Your task to perform on an android device: toggle notifications settings in the gmail app Image 0: 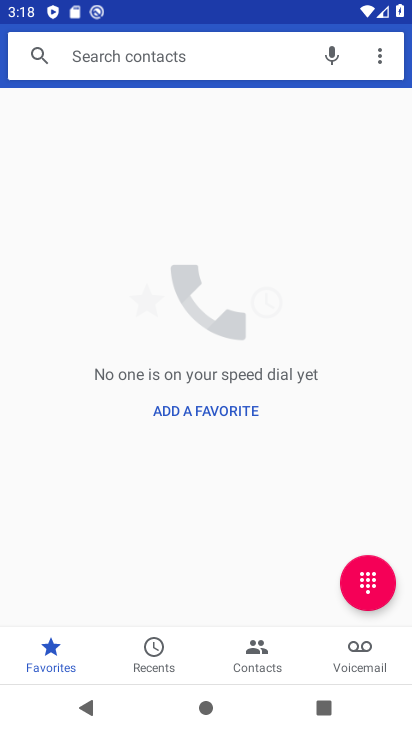
Step 0: press home button
Your task to perform on an android device: toggle notifications settings in the gmail app Image 1: 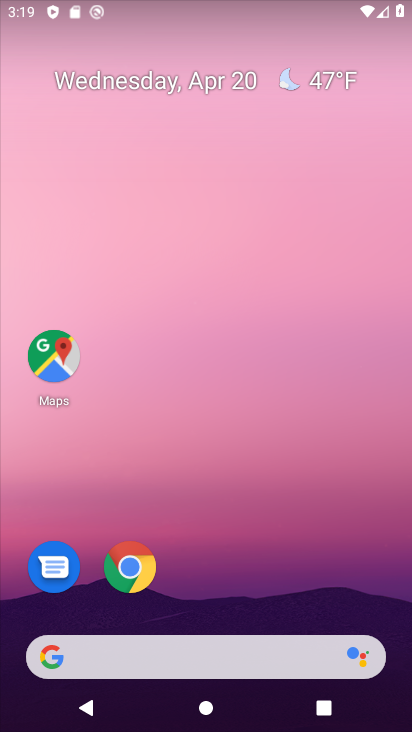
Step 1: drag from (162, 608) to (80, 21)
Your task to perform on an android device: toggle notifications settings in the gmail app Image 2: 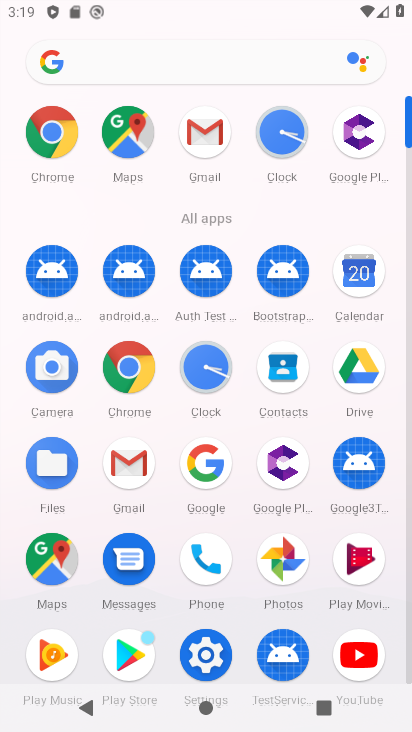
Step 2: click (218, 133)
Your task to perform on an android device: toggle notifications settings in the gmail app Image 3: 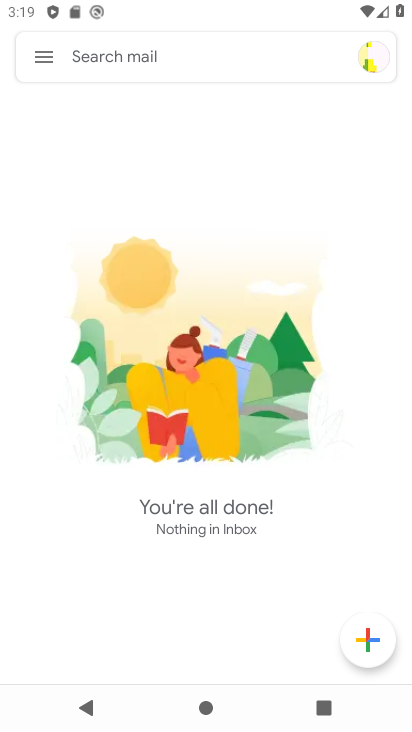
Step 3: click (45, 62)
Your task to perform on an android device: toggle notifications settings in the gmail app Image 4: 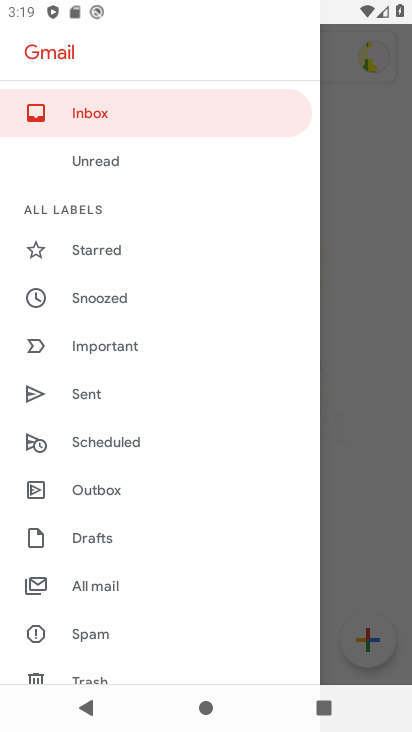
Step 4: drag from (162, 647) to (188, 14)
Your task to perform on an android device: toggle notifications settings in the gmail app Image 5: 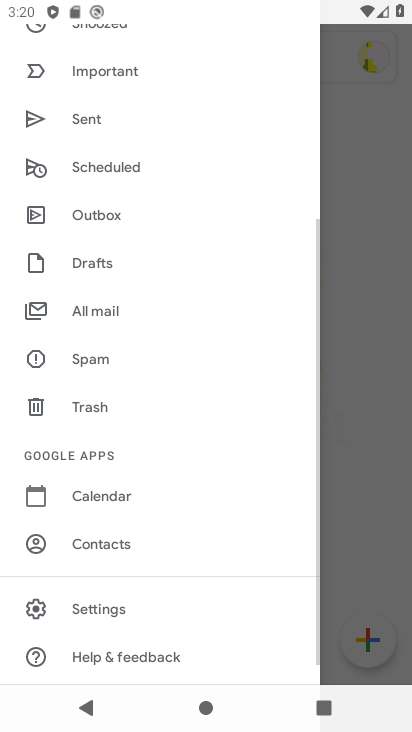
Step 5: click (109, 586)
Your task to perform on an android device: toggle notifications settings in the gmail app Image 6: 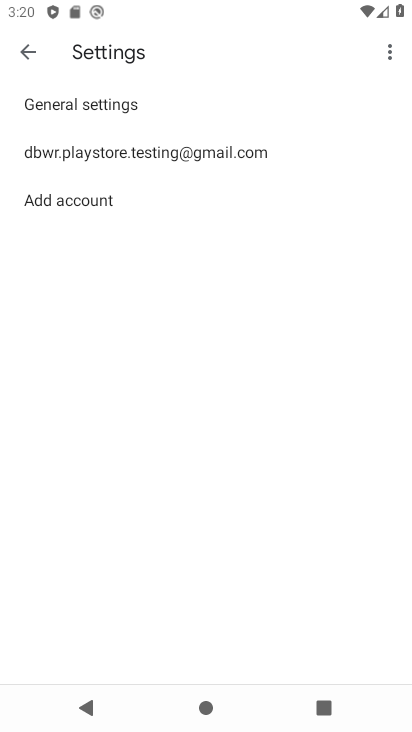
Step 6: click (100, 157)
Your task to perform on an android device: toggle notifications settings in the gmail app Image 7: 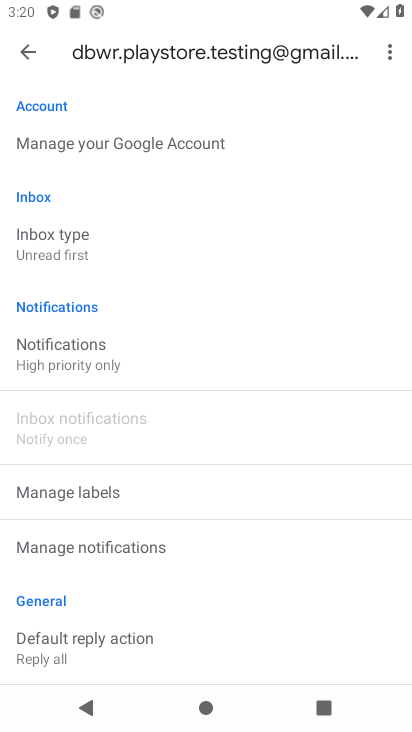
Step 7: click (153, 382)
Your task to perform on an android device: toggle notifications settings in the gmail app Image 8: 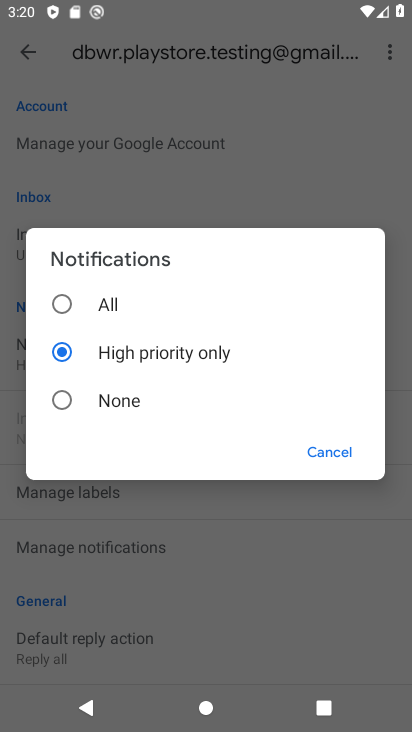
Step 8: click (103, 329)
Your task to perform on an android device: toggle notifications settings in the gmail app Image 9: 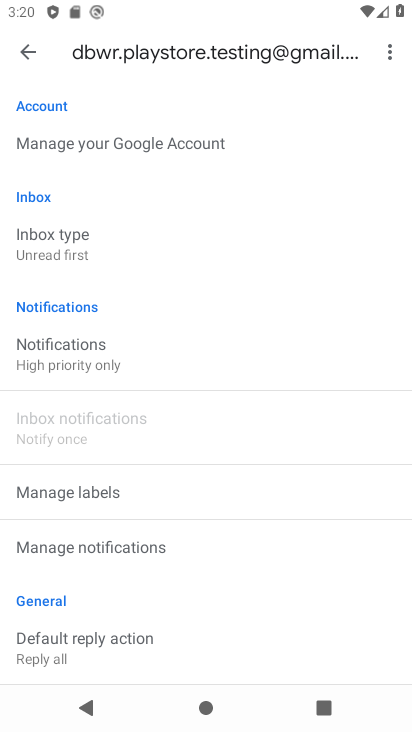
Step 9: task complete